Your task to perform on an android device: toggle show notifications on the lock screen Image 0: 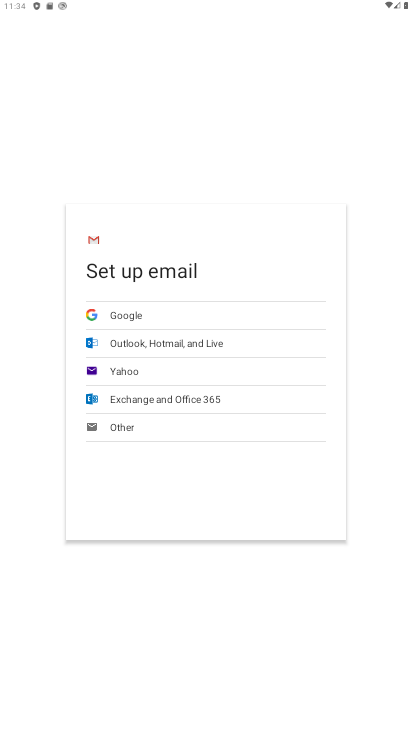
Step 0: press home button
Your task to perform on an android device: toggle show notifications on the lock screen Image 1: 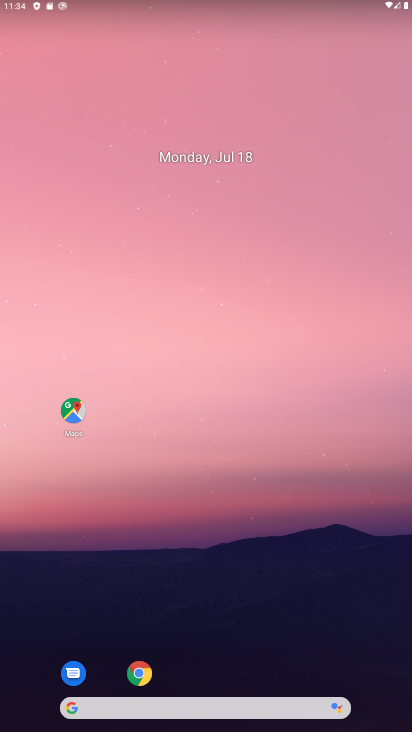
Step 1: drag from (243, 618) to (177, 169)
Your task to perform on an android device: toggle show notifications on the lock screen Image 2: 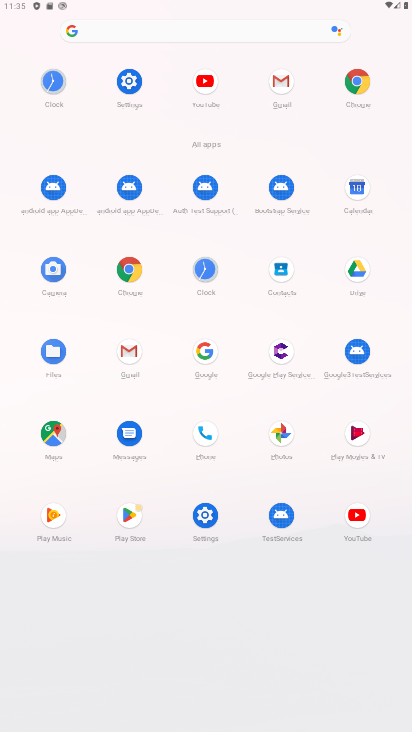
Step 2: click (366, 513)
Your task to perform on an android device: toggle show notifications on the lock screen Image 3: 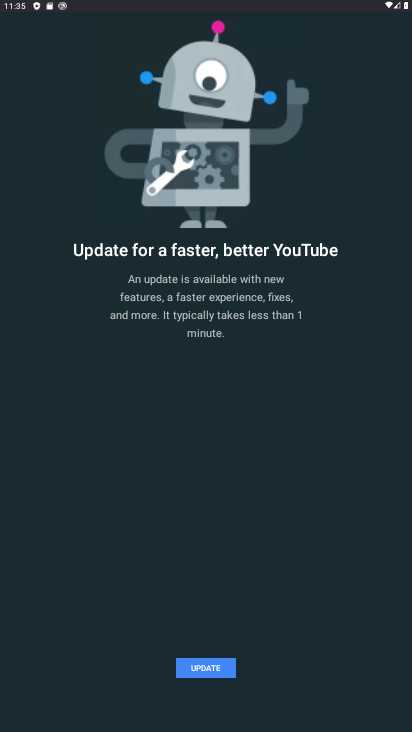
Step 3: press back button
Your task to perform on an android device: toggle show notifications on the lock screen Image 4: 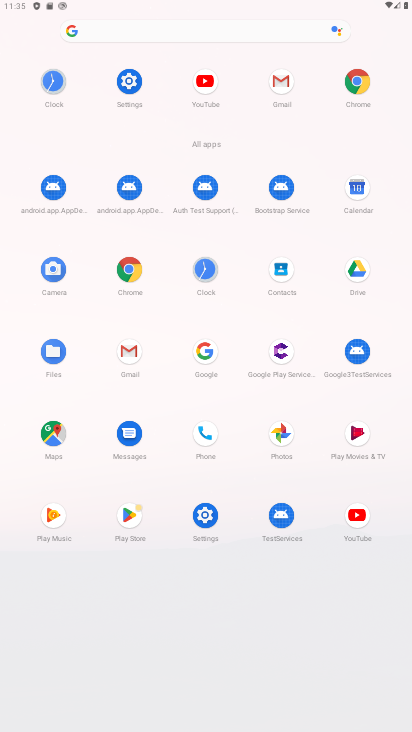
Step 4: click (209, 519)
Your task to perform on an android device: toggle show notifications on the lock screen Image 5: 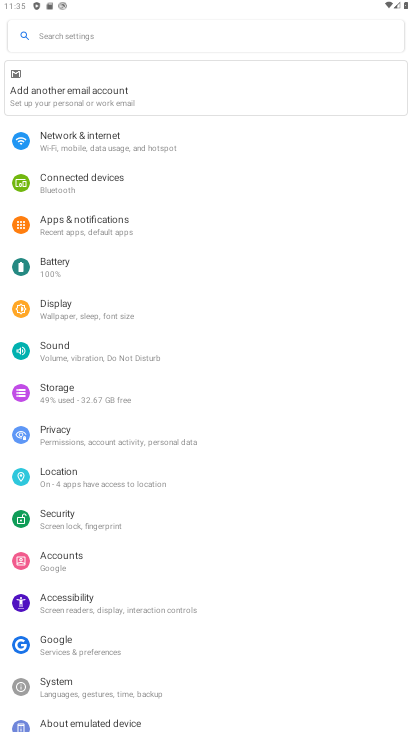
Step 5: click (86, 234)
Your task to perform on an android device: toggle show notifications on the lock screen Image 6: 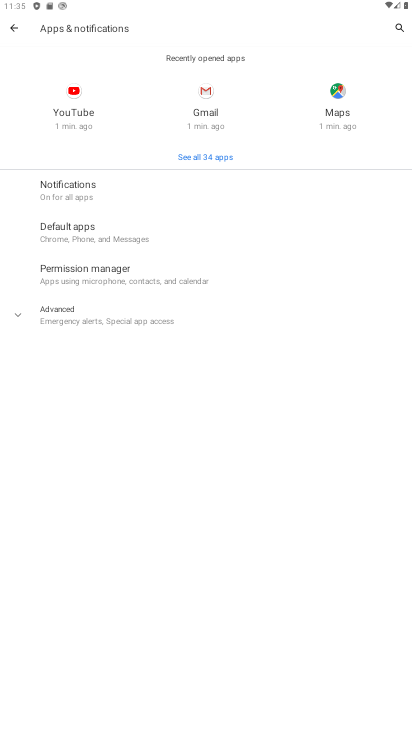
Step 6: click (126, 181)
Your task to perform on an android device: toggle show notifications on the lock screen Image 7: 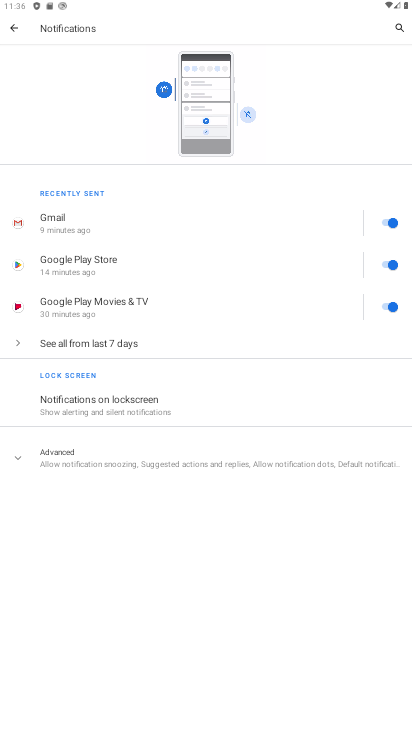
Step 7: click (145, 406)
Your task to perform on an android device: toggle show notifications on the lock screen Image 8: 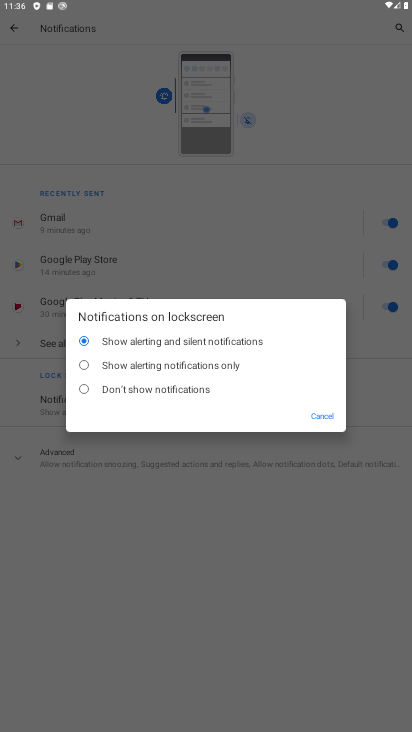
Step 8: click (123, 387)
Your task to perform on an android device: toggle show notifications on the lock screen Image 9: 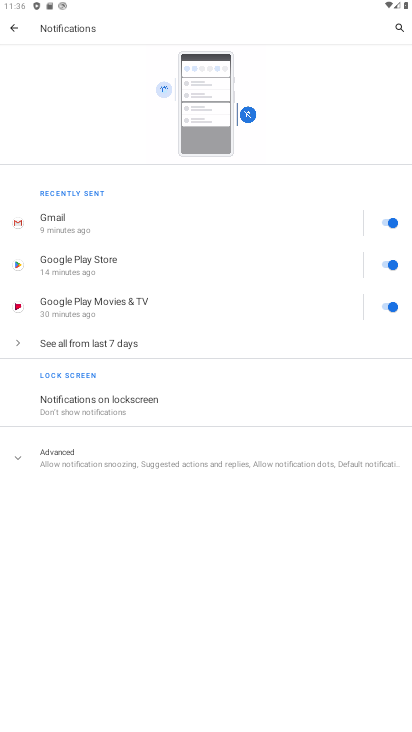
Step 9: task complete